Your task to perform on an android device: What's on my calendar tomorrow? Image 0: 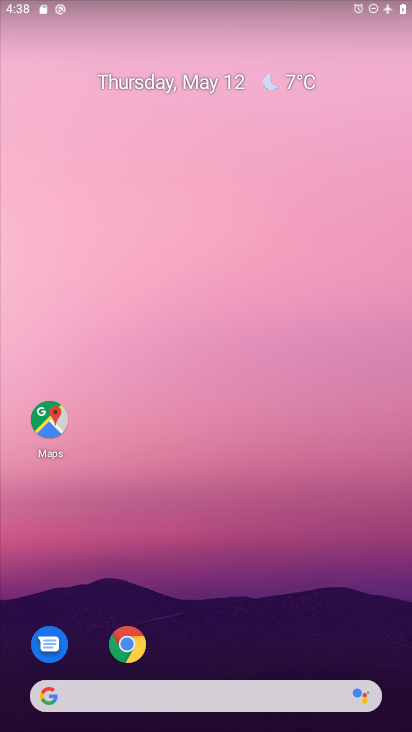
Step 0: drag from (277, 609) to (342, 134)
Your task to perform on an android device: What's on my calendar tomorrow? Image 1: 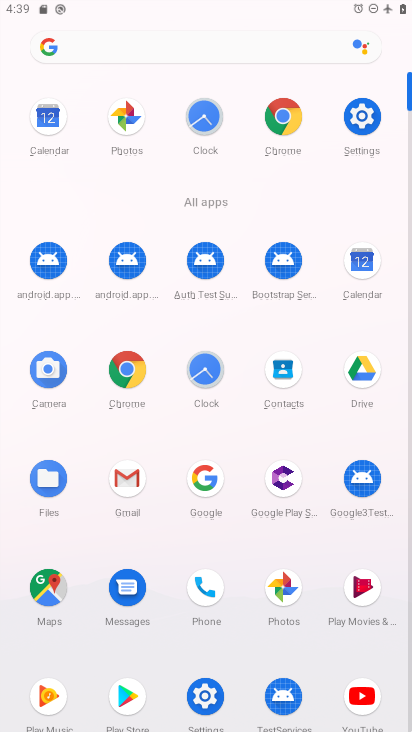
Step 1: click (289, 388)
Your task to perform on an android device: What's on my calendar tomorrow? Image 2: 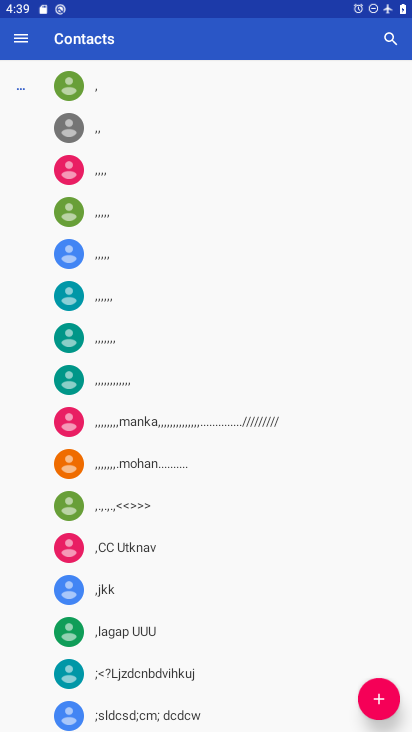
Step 2: press home button
Your task to perform on an android device: What's on my calendar tomorrow? Image 3: 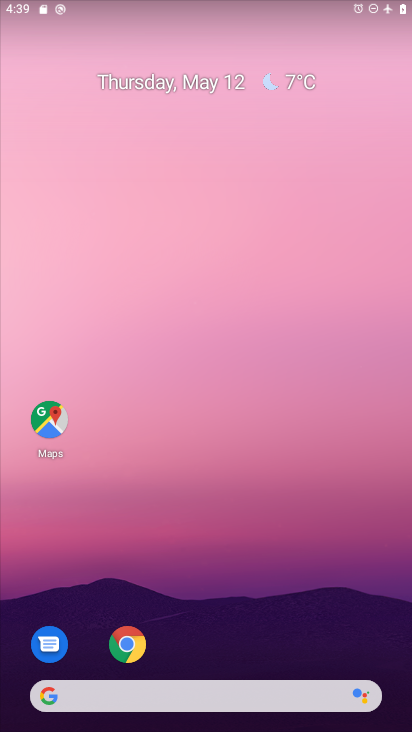
Step 3: drag from (272, 612) to (344, 174)
Your task to perform on an android device: What's on my calendar tomorrow? Image 4: 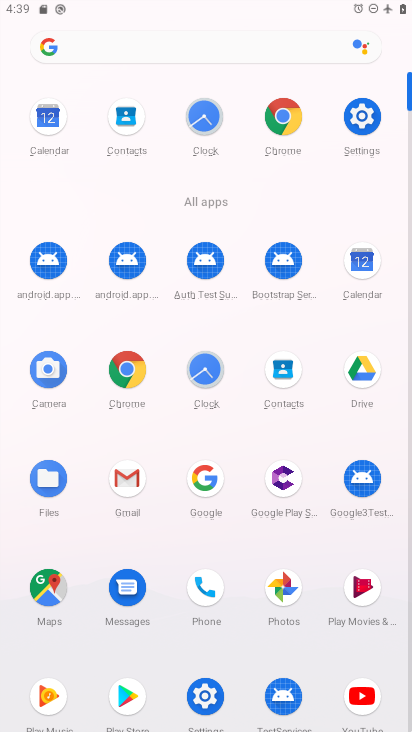
Step 4: click (366, 285)
Your task to perform on an android device: What's on my calendar tomorrow? Image 5: 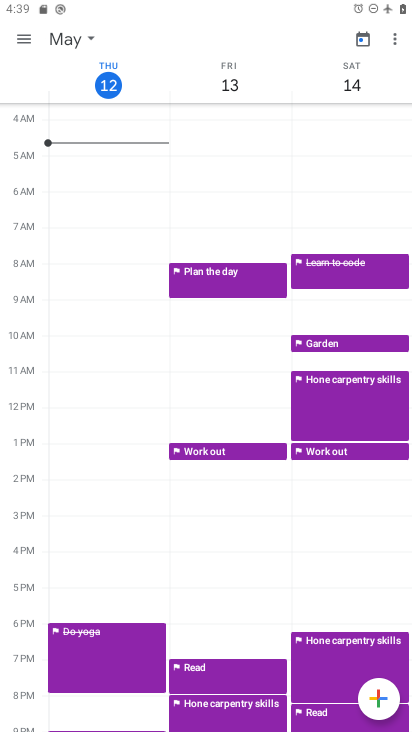
Step 5: task complete